Your task to perform on an android device: Search for vegetarian restaurants on Maps Image 0: 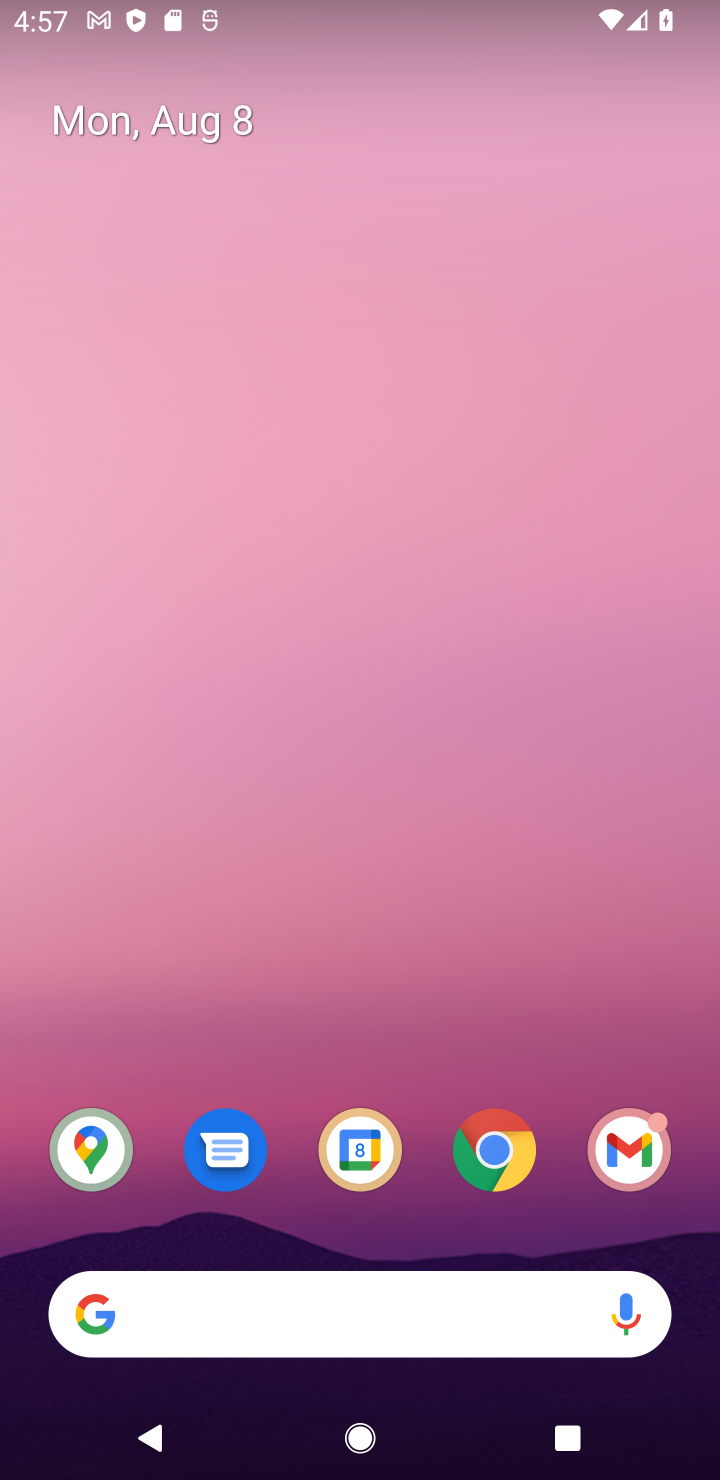
Step 0: click (72, 1171)
Your task to perform on an android device: Search for vegetarian restaurants on Maps Image 1: 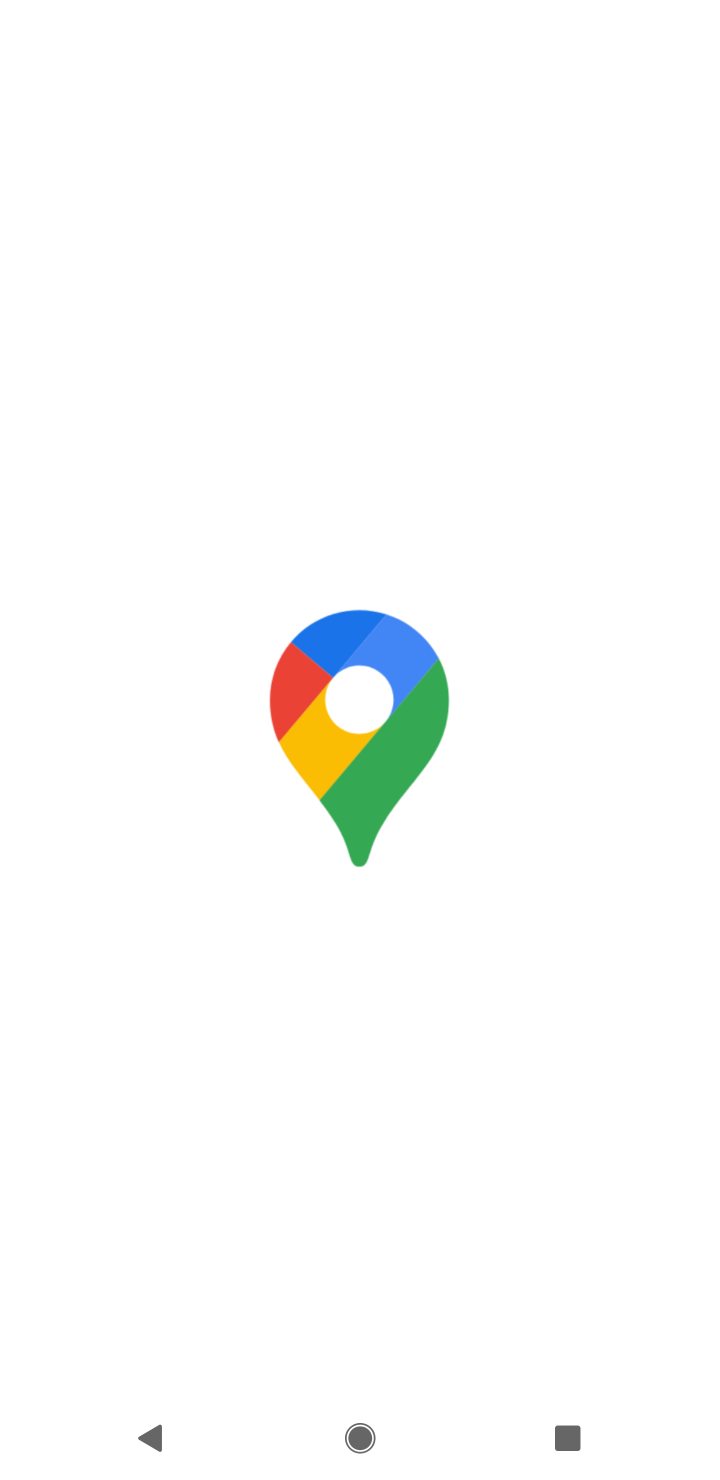
Step 1: task complete